Your task to perform on an android device: open app "Venmo" (install if not already installed) and go to login screen Image 0: 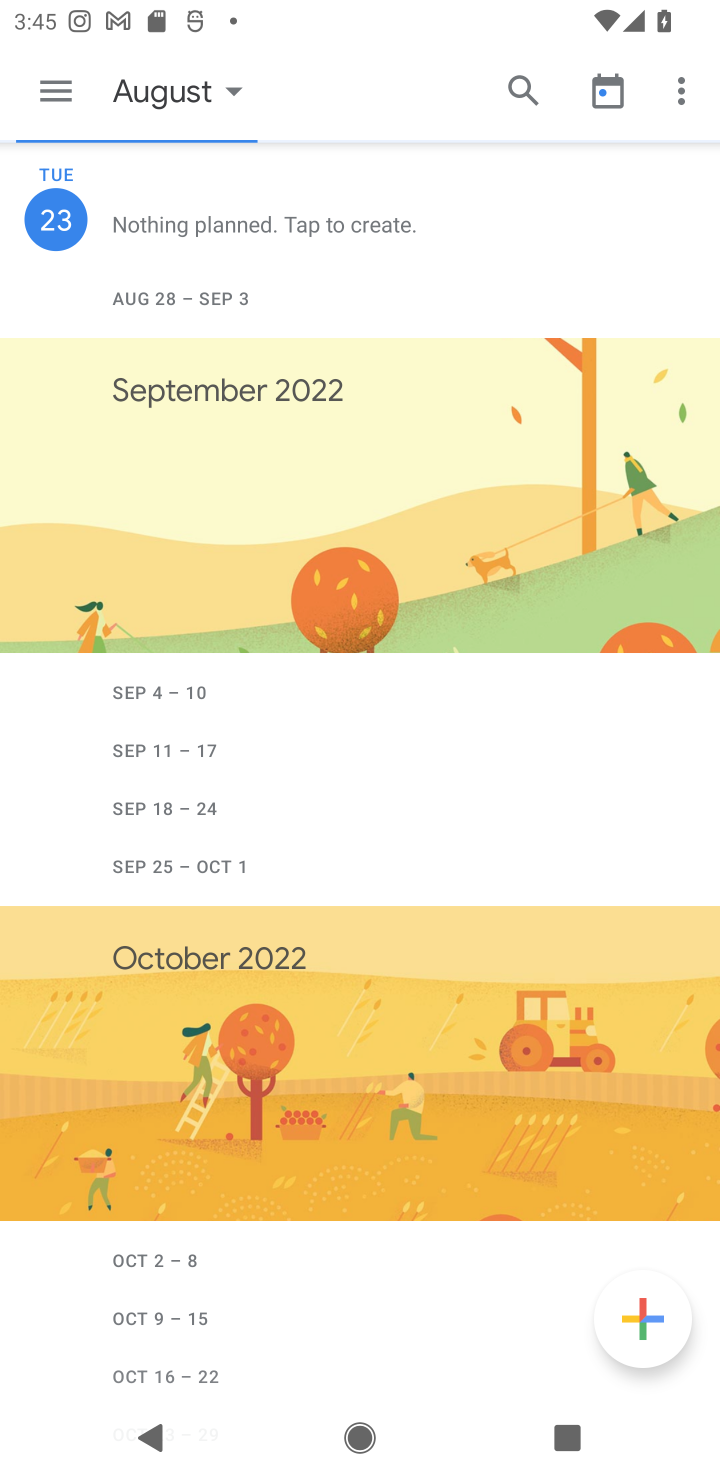
Step 0: press home button
Your task to perform on an android device: open app "Venmo" (install if not already installed) and go to login screen Image 1: 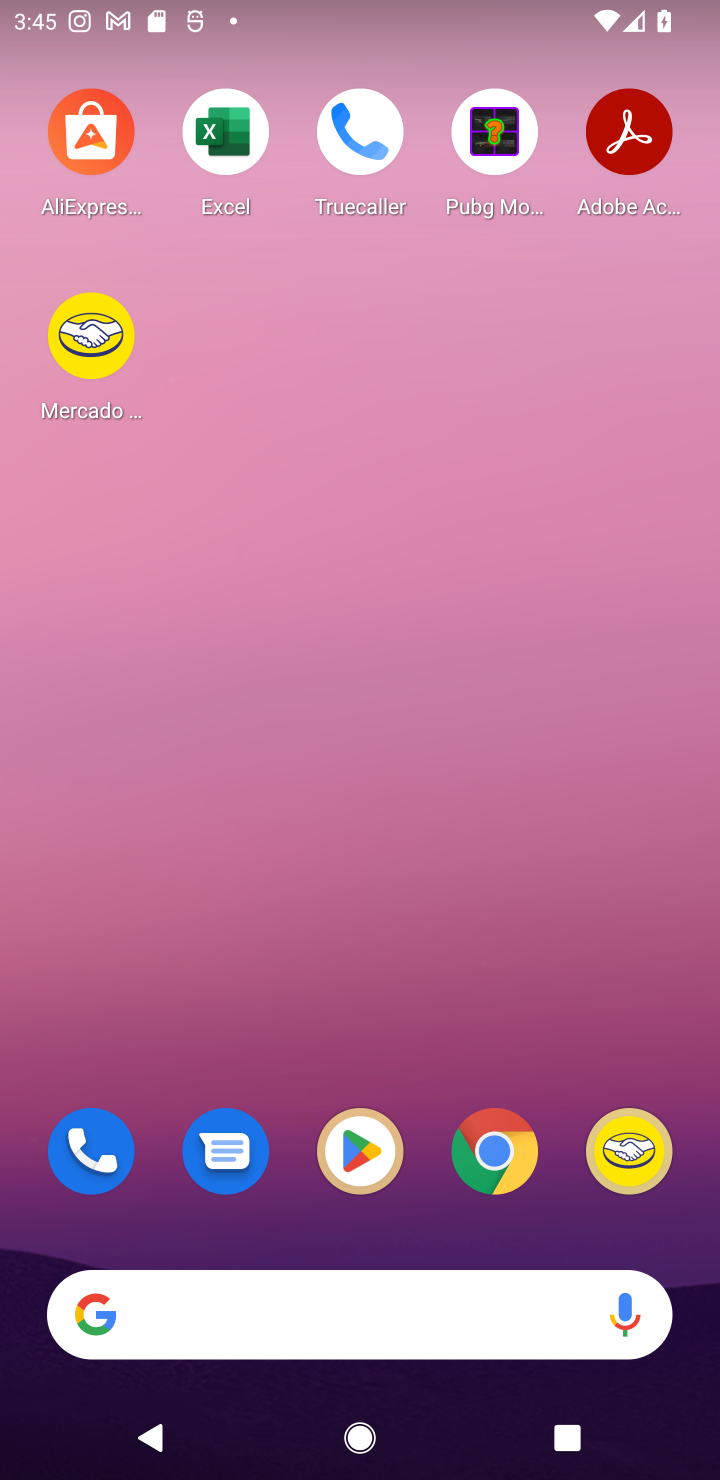
Step 1: press home button
Your task to perform on an android device: open app "Venmo" (install if not already installed) and go to login screen Image 2: 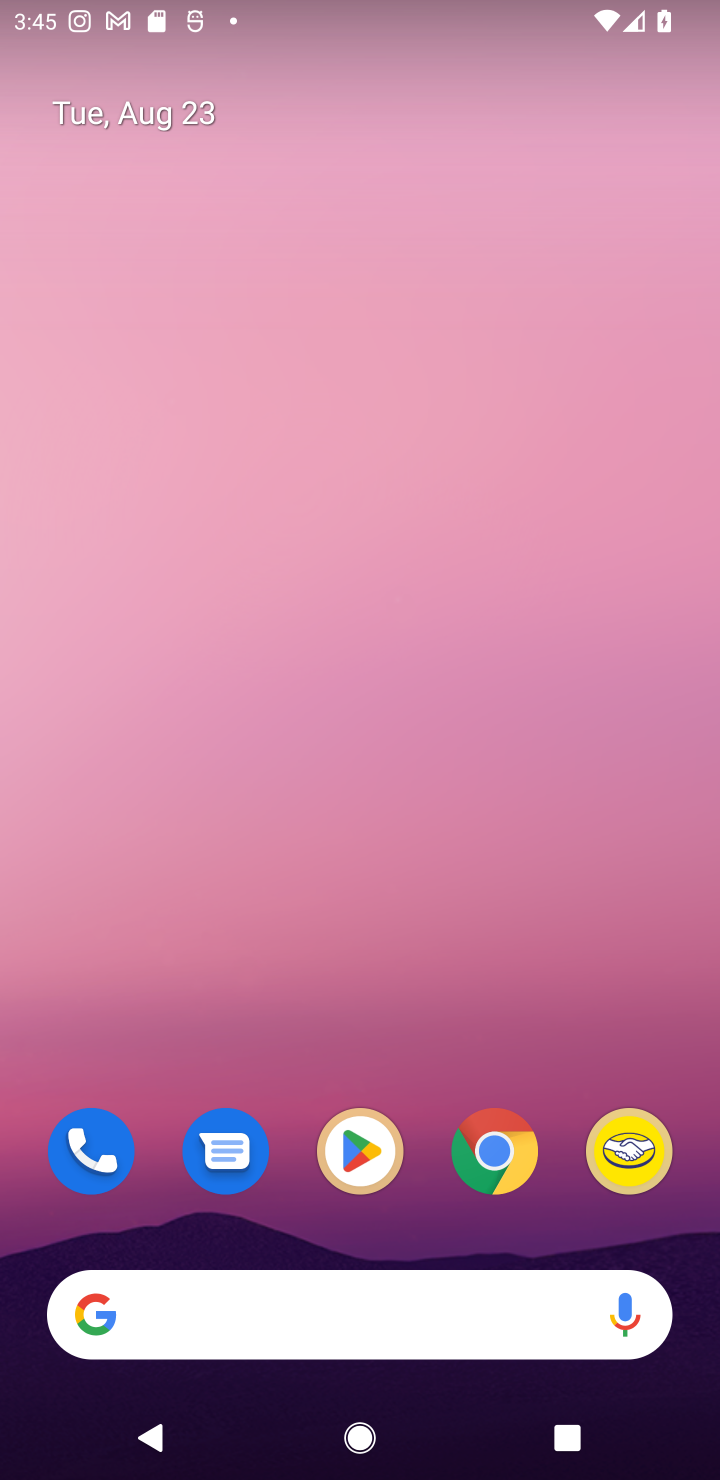
Step 2: click (367, 1156)
Your task to perform on an android device: open app "Venmo" (install if not already installed) and go to login screen Image 3: 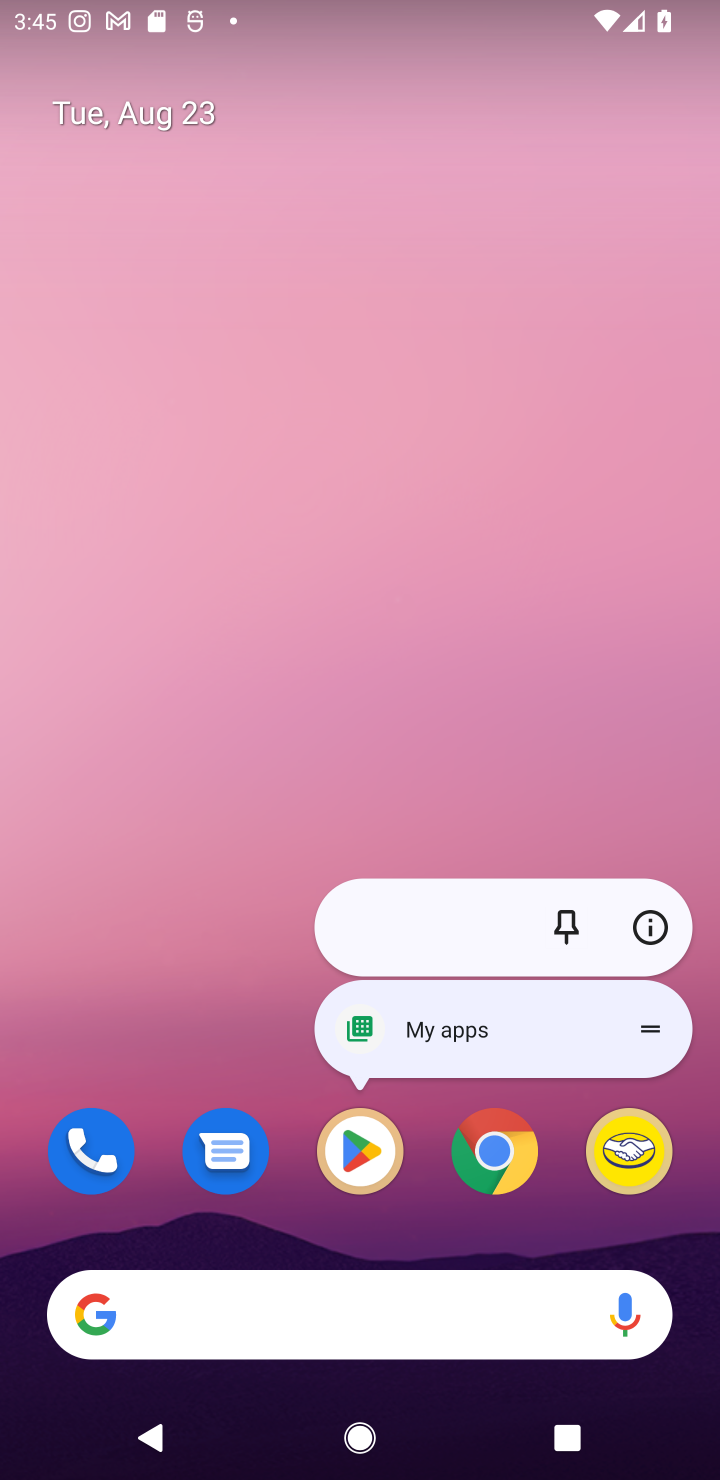
Step 3: click (367, 1158)
Your task to perform on an android device: open app "Venmo" (install if not already installed) and go to login screen Image 4: 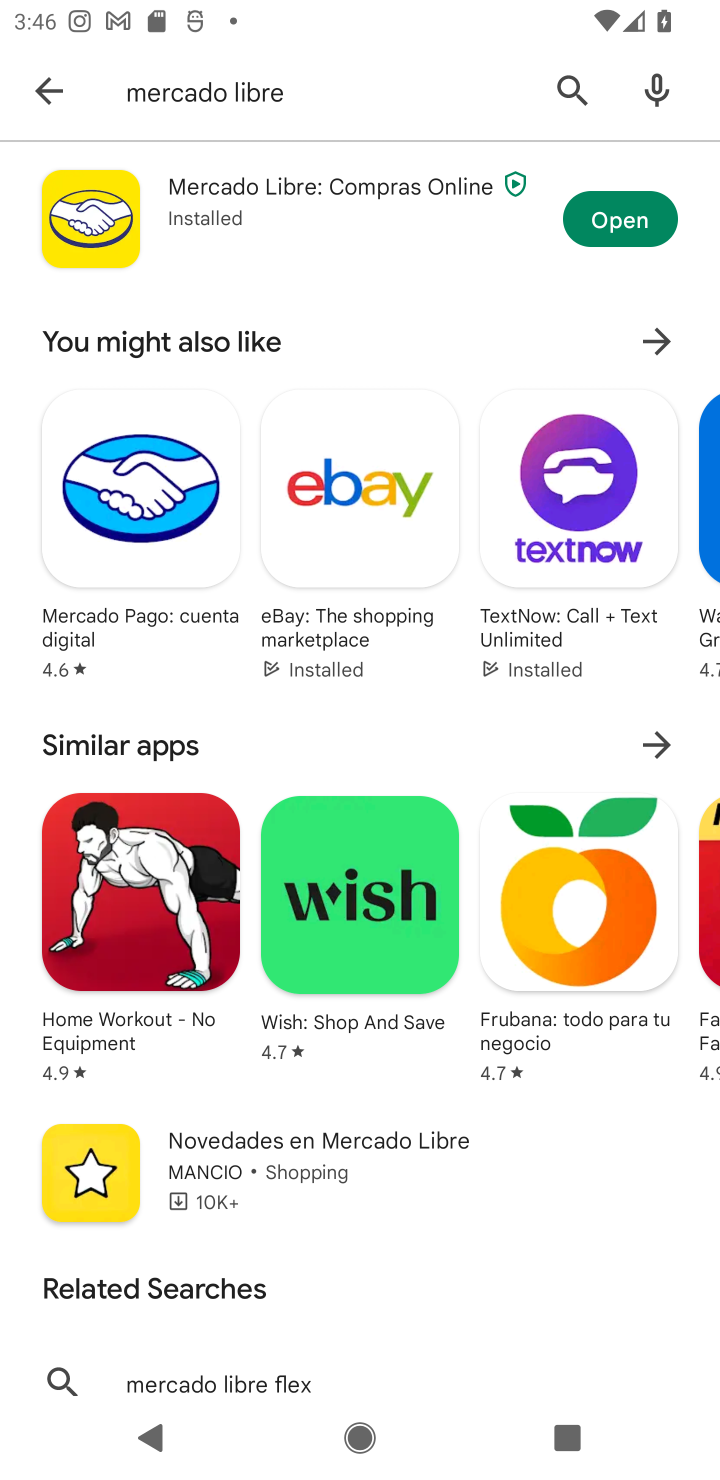
Step 4: click (566, 89)
Your task to perform on an android device: open app "Venmo" (install if not already installed) and go to login screen Image 5: 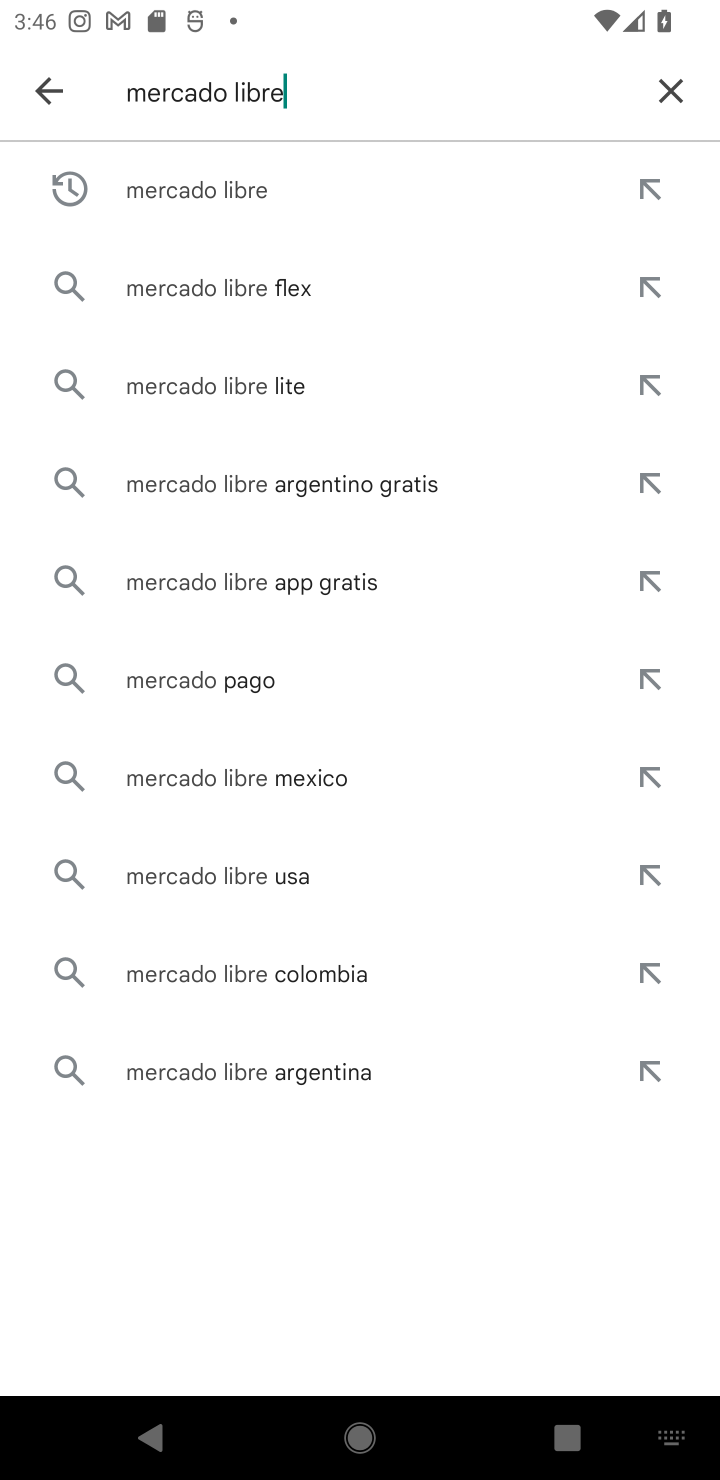
Step 5: click (673, 79)
Your task to perform on an android device: open app "Venmo" (install if not already installed) and go to login screen Image 6: 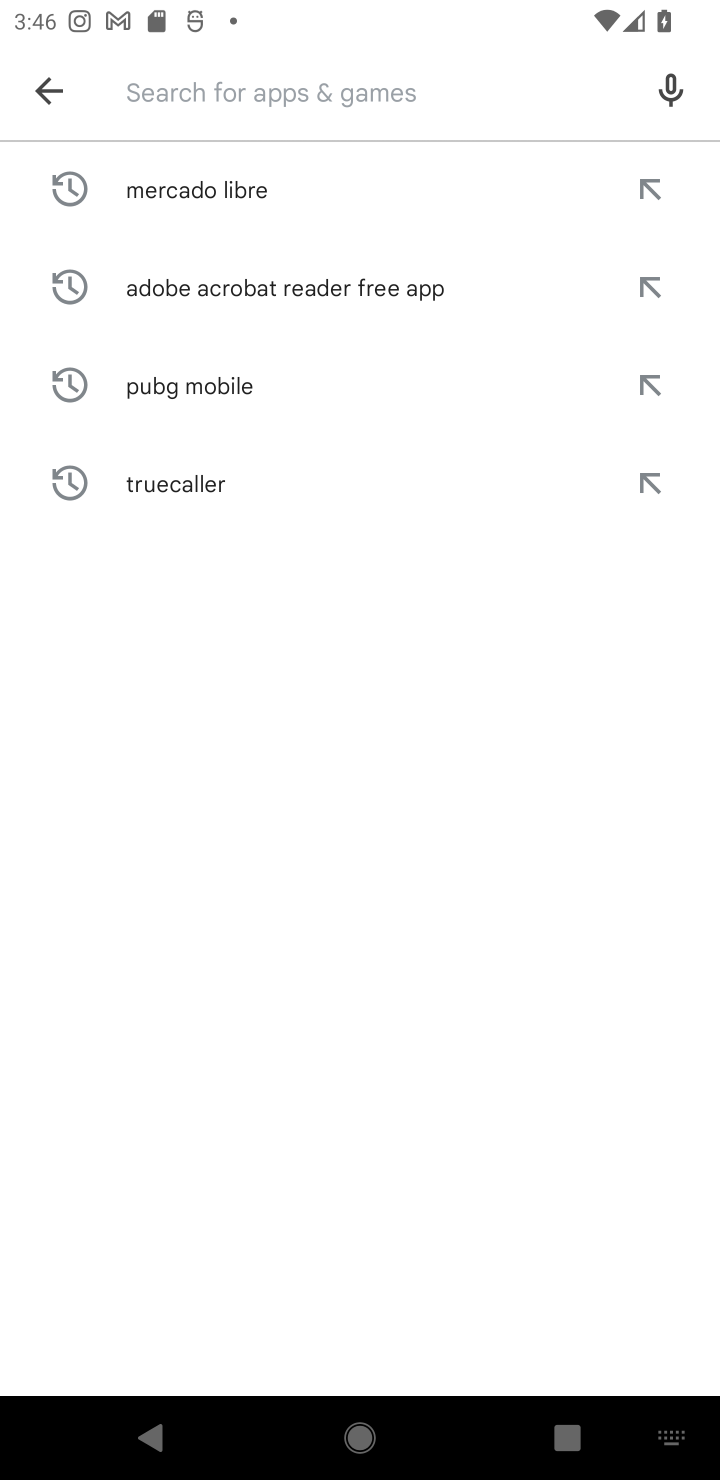
Step 6: type "Venmo"
Your task to perform on an android device: open app "Venmo" (install if not already installed) and go to login screen Image 7: 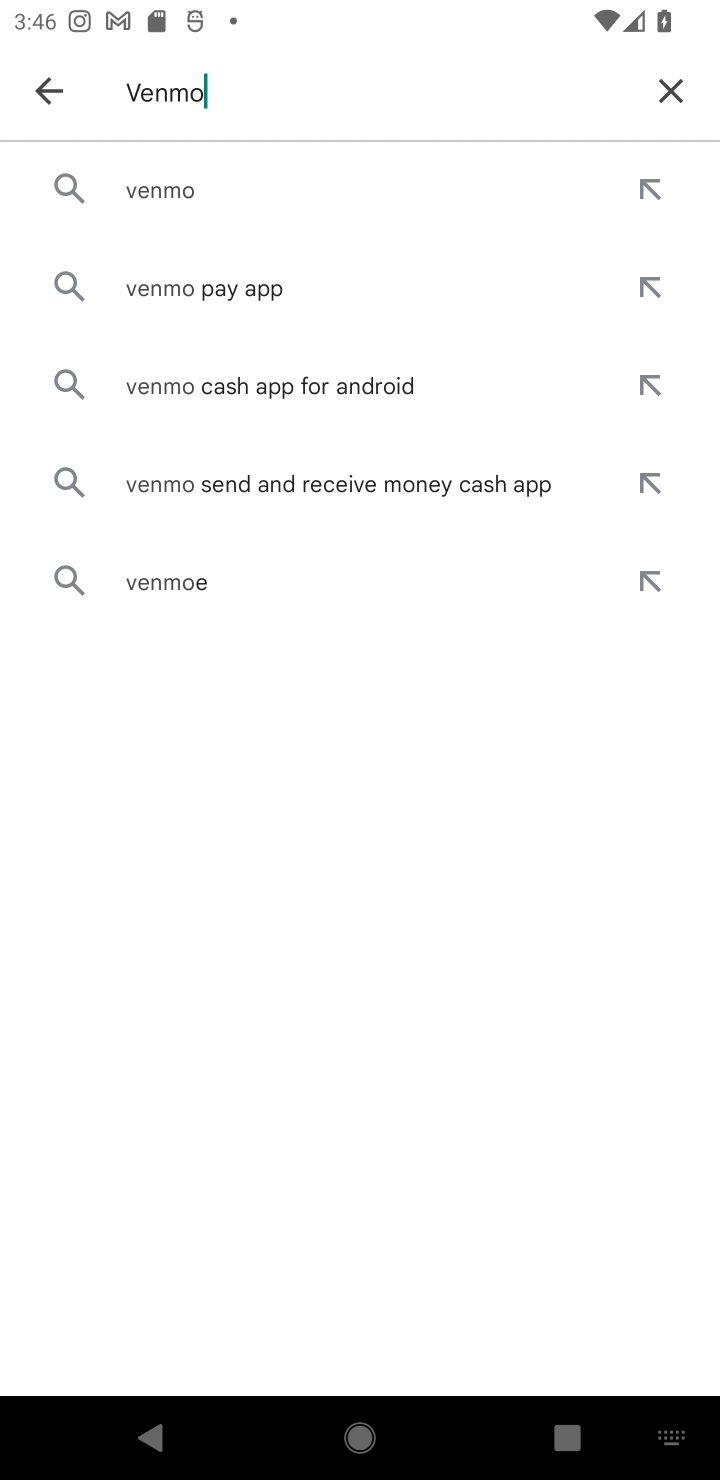
Step 7: click (184, 182)
Your task to perform on an android device: open app "Venmo" (install if not already installed) and go to login screen Image 8: 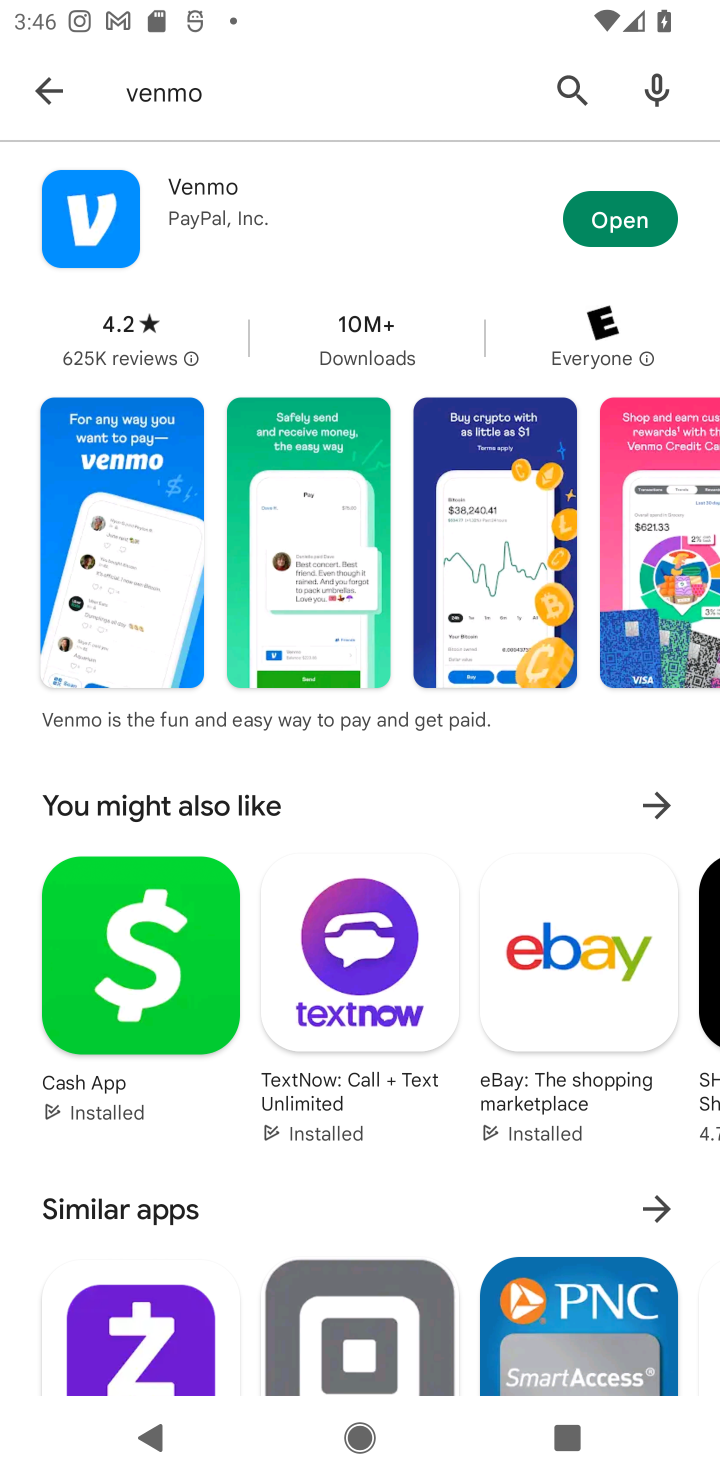
Step 8: click (635, 226)
Your task to perform on an android device: open app "Venmo" (install if not already installed) and go to login screen Image 9: 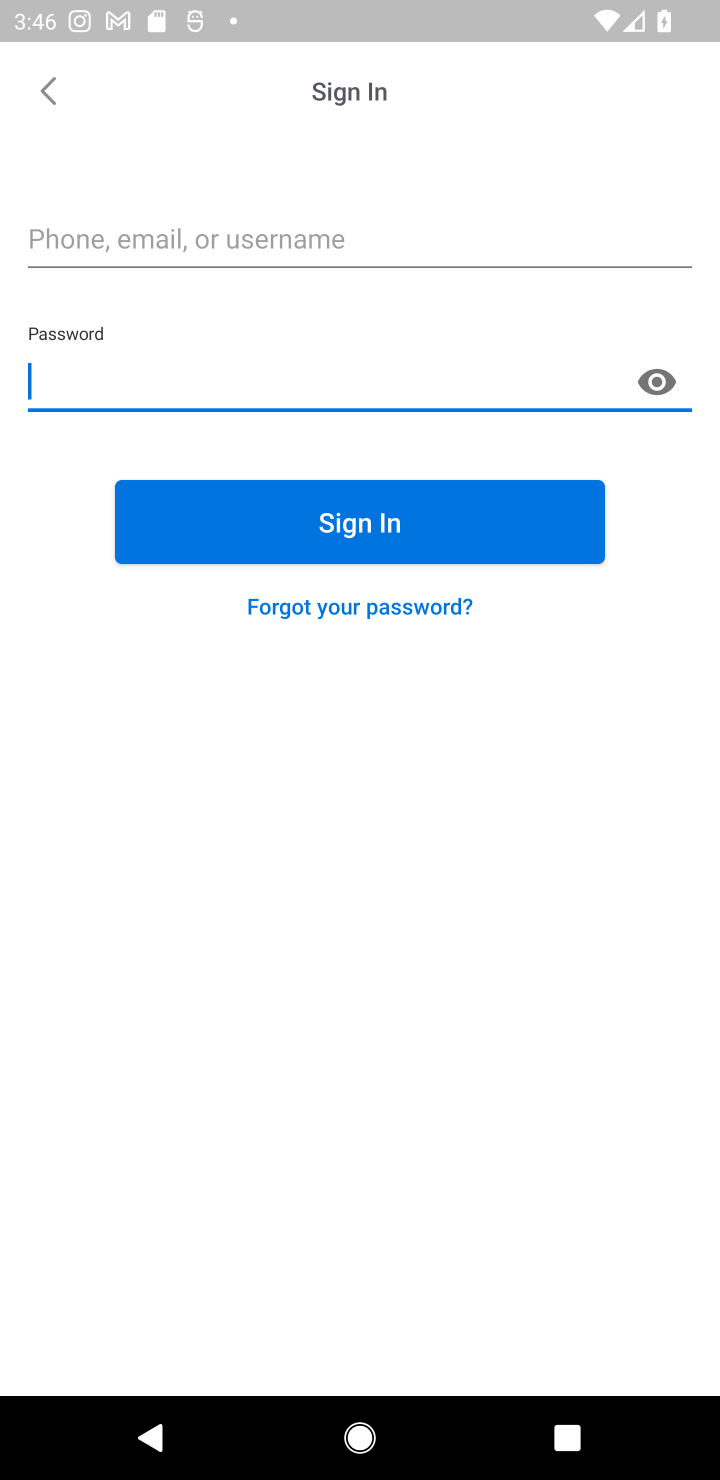
Step 9: task complete